Your task to perform on an android device: Search for seafood restaurants on Google Maps Image 0: 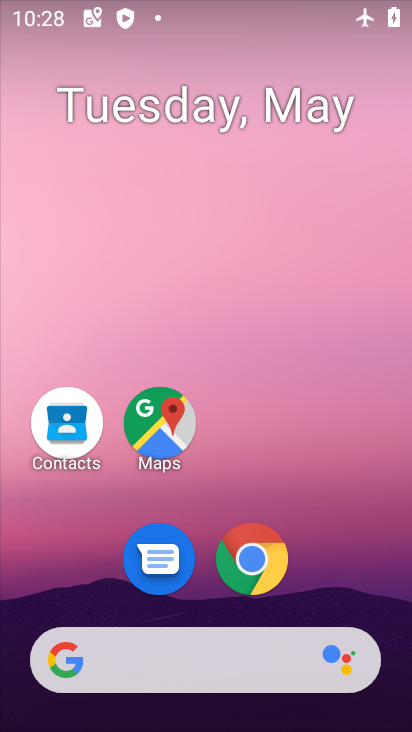
Step 0: click (168, 447)
Your task to perform on an android device: Search for seafood restaurants on Google Maps Image 1: 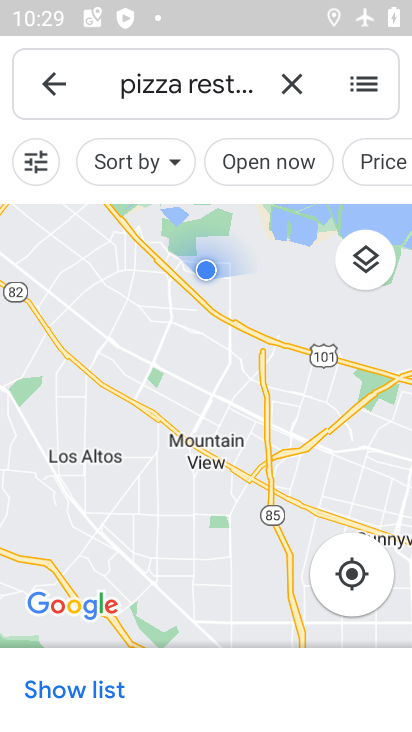
Step 1: click (282, 100)
Your task to perform on an android device: Search for seafood restaurants on Google Maps Image 2: 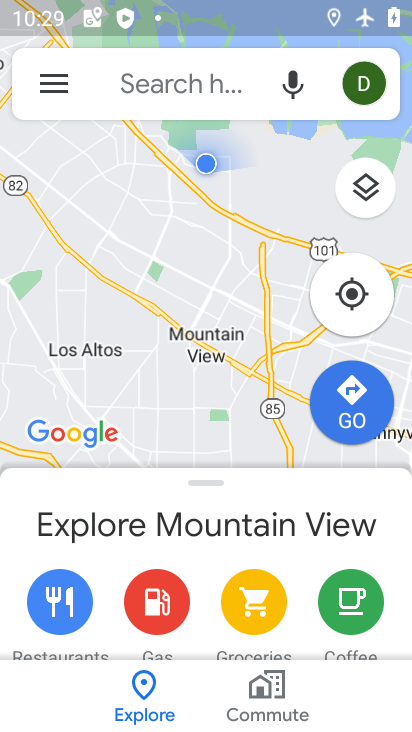
Step 2: click (256, 96)
Your task to perform on an android device: Search for seafood restaurants on Google Maps Image 3: 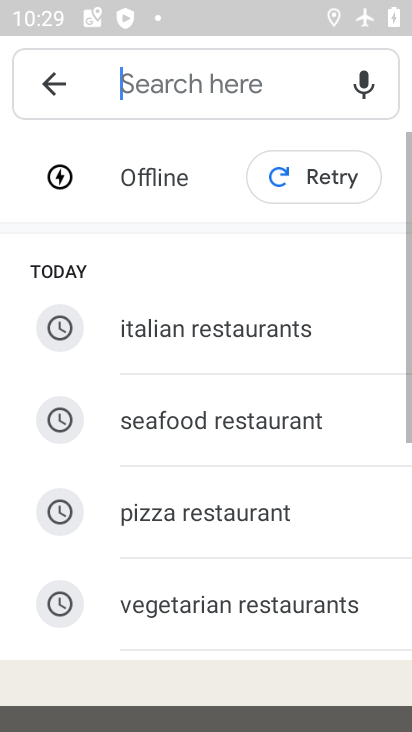
Step 3: click (223, 96)
Your task to perform on an android device: Search for seafood restaurants on Google Maps Image 4: 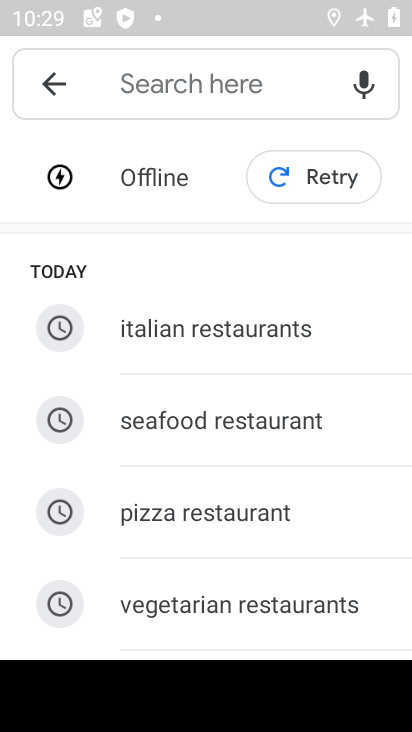
Step 4: click (237, 419)
Your task to perform on an android device: Search for seafood restaurants on Google Maps Image 5: 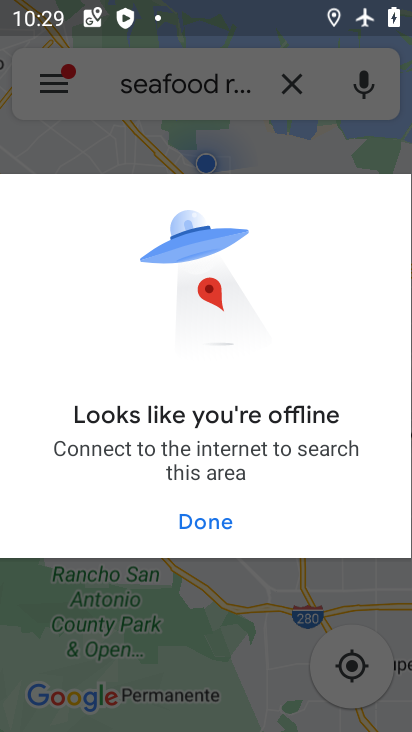
Step 5: task complete